Your task to perform on an android device: open sync settings in chrome Image 0: 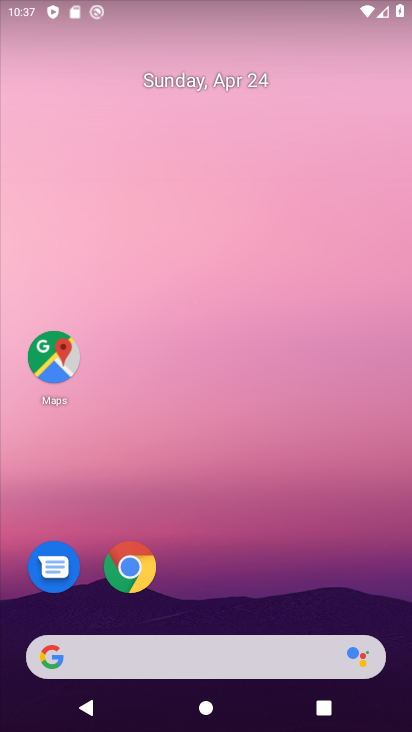
Step 0: drag from (335, 458) to (394, 4)
Your task to perform on an android device: open sync settings in chrome Image 1: 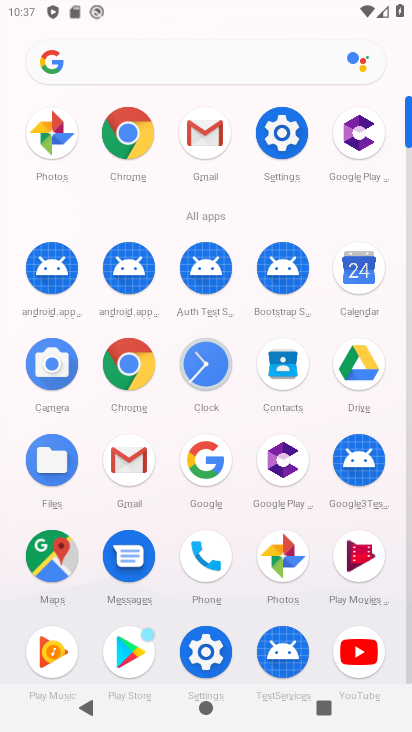
Step 1: click (134, 363)
Your task to perform on an android device: open sync settings in chrome Image 2: 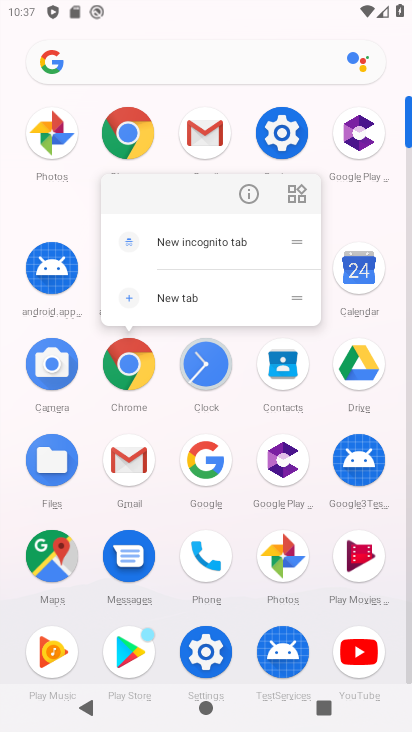
Step 2: click (119, 375)
Your task to perform on an android device: open sync settings in chrome Image 3: 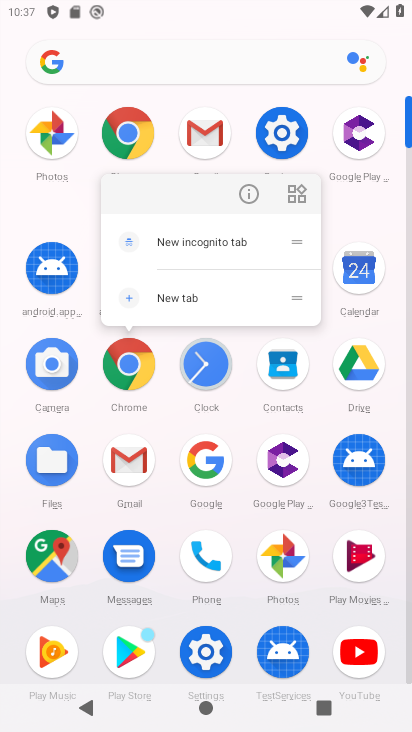
Step 3: click (117, 375)
Your task to perform on an android device: open sync settings in chrome Image 4: 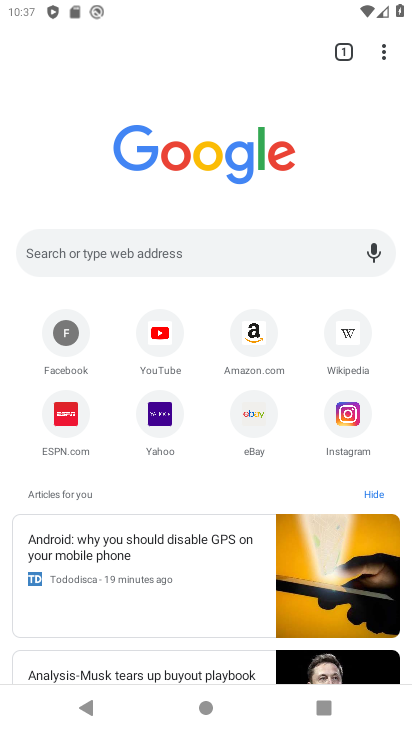
Step 4: drag from (382, 51) to (208, 442)
Your task to perform on an android device: open sync settings in chrome Image 5: 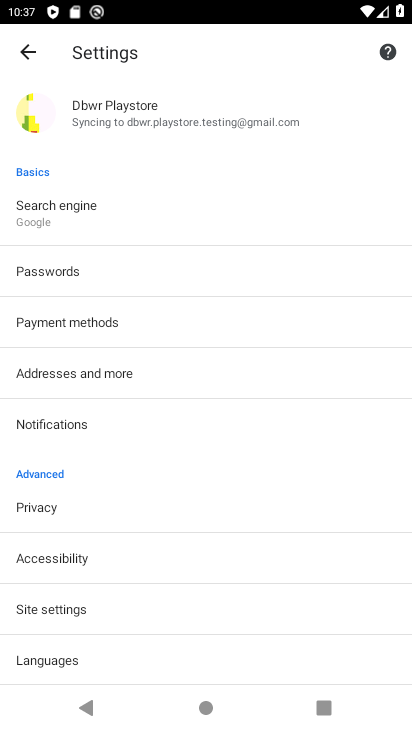
Step 5: click (71, 604)
Your task to perform on an android device: open sync settings in chrome Image 6: 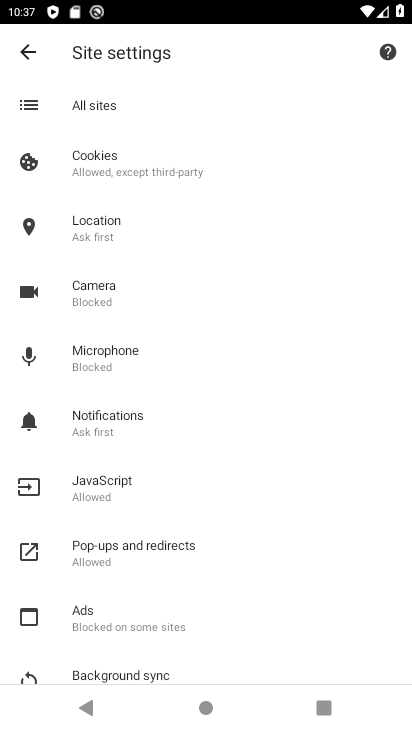
Step 6: click (154, 673)
Your task to perform on an android device: open sync settings in chrome Image 7: 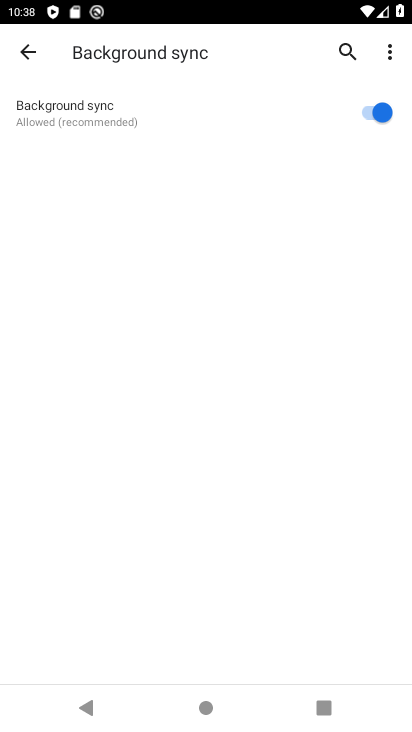
Step 7: task complete